Your task to perform on an android device: Open Youtube and go to the subscriptions tab Image 0: 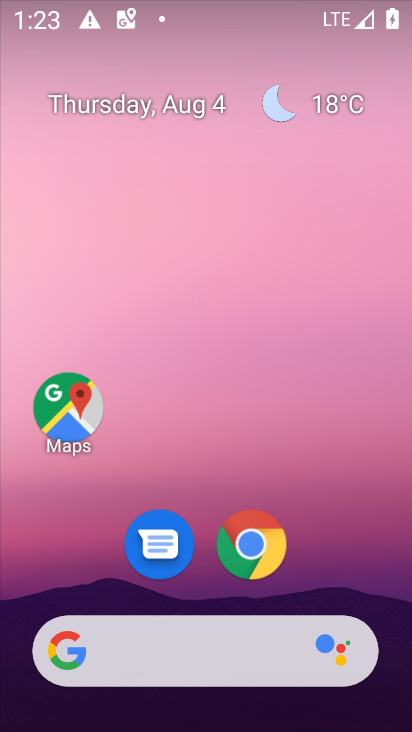
Step 0: drag from (391, 703) to (340, 109)
Your task to perform on an android device: Open Youtube and go to the subscriptions tab Image 1: 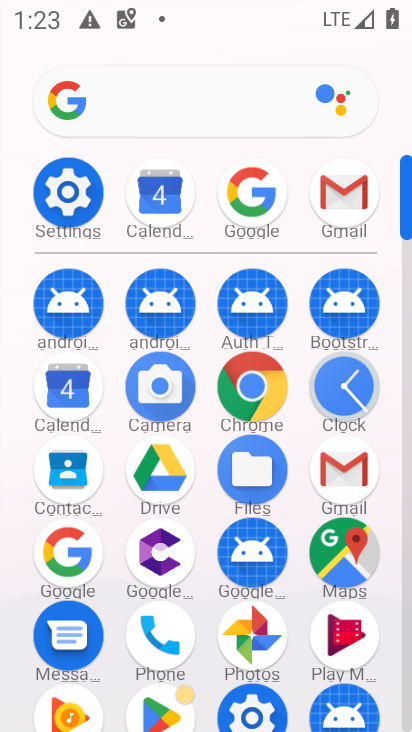
Step 1: drag from (204, 672) to (204, 298)
Your task to perform on an android device: Open Youtube and go to the subscriptions tab Image 2: 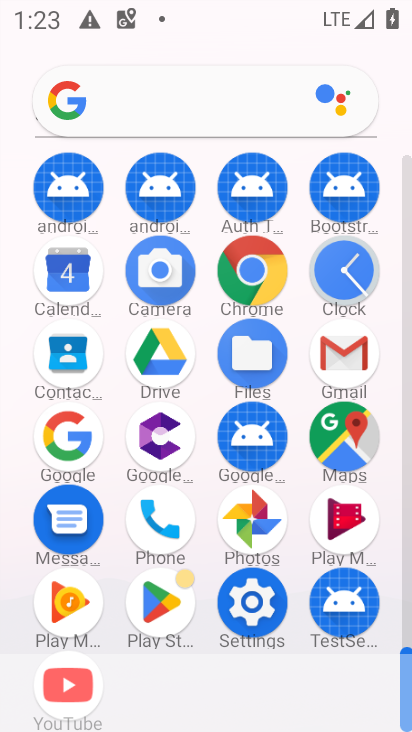
Step 2: click (67, 680)
Your task to perform on an android device: Open Youtube and go to the subscriptions tab Image 3: 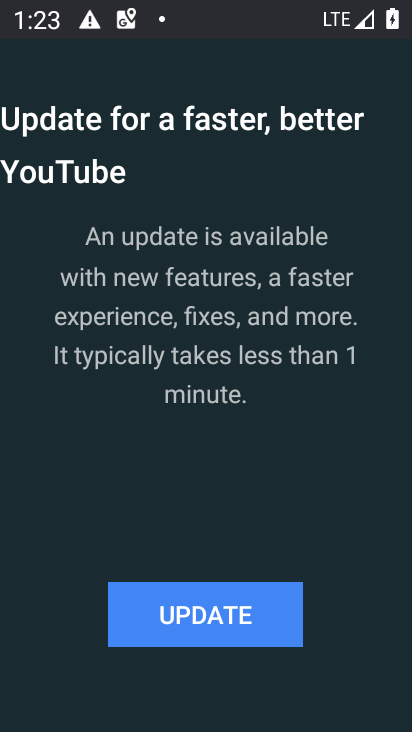
Step 3: click (191, 608)
Your task to perform on an android device: Open Youtube and go to the subscriptions tab Image 4: 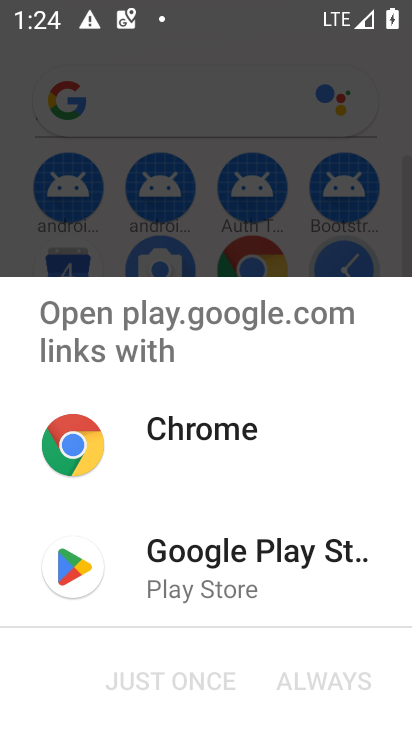
Step 4: click (172, 574)
Your task to perform on an android device: Open Youtube and go to the subscriptions tab Image 5: 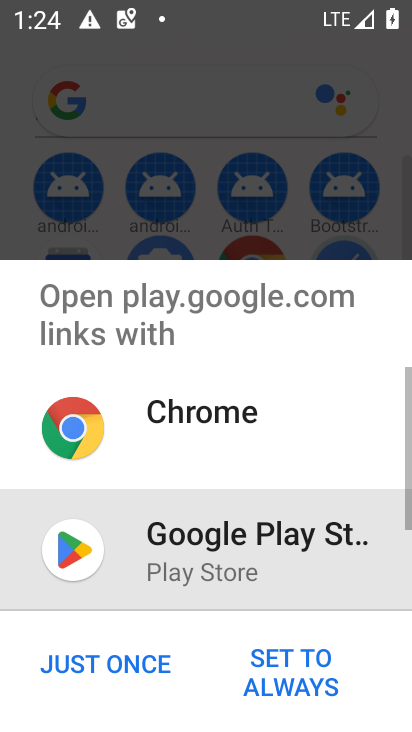
Step 5: click (131, 665)
Your task to perform on an android device: Open Youtube and go to the subscriptions tab Image 6: 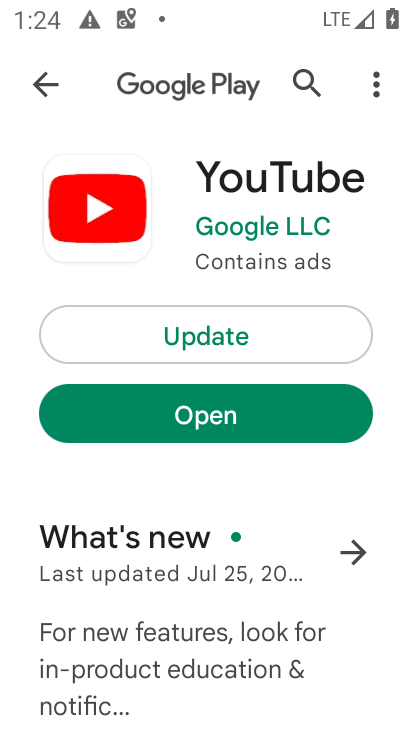
Step 6: click (254, 421)
Your task to perform on an android device: Open Youtube and go to the subscriptions tab Image 7: 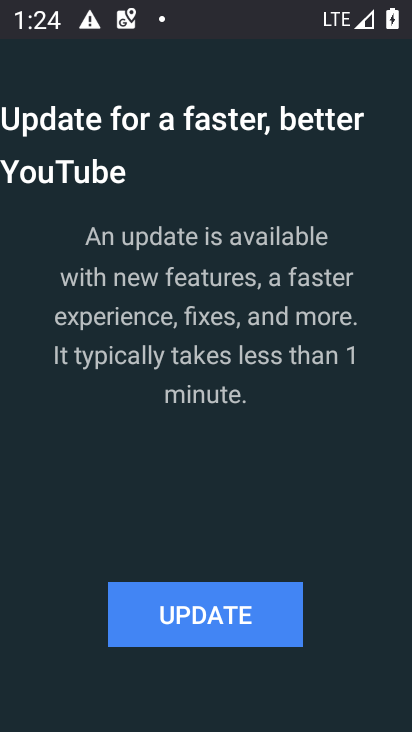
Step 7: click (198, 629)
Your task to perform on an android device: Open Youtube and go to the subscriptions tab Image 8: 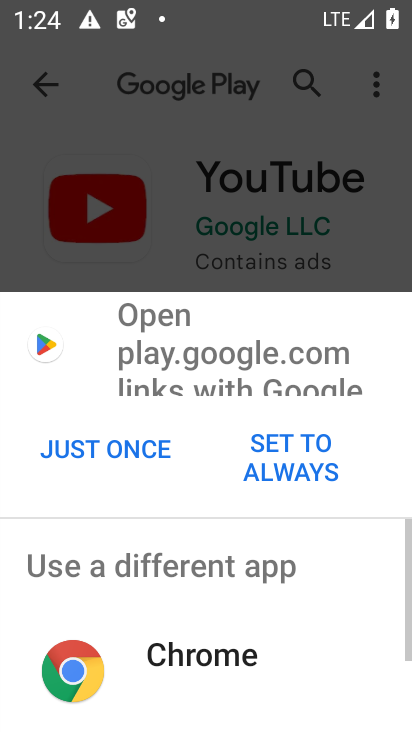
Step 8: click (129, 452)
Your task to perform on an android device: Open Youtube and go to the subscriptions tab Image 9: 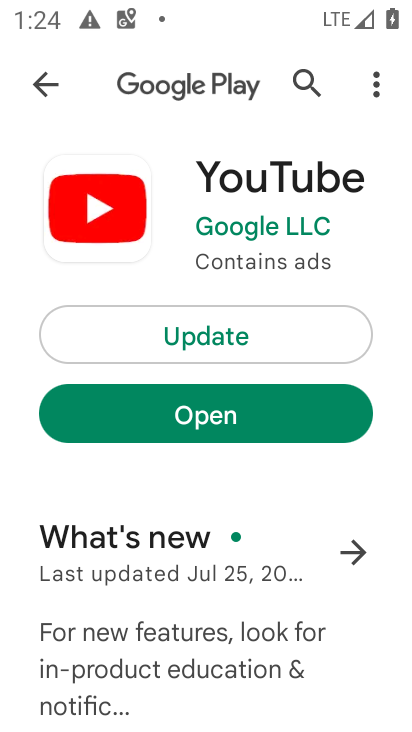
Step 9: click (284, 338)
Your task to perform on an android device: Open Youtube and go to the subscriptions tab Image 10: 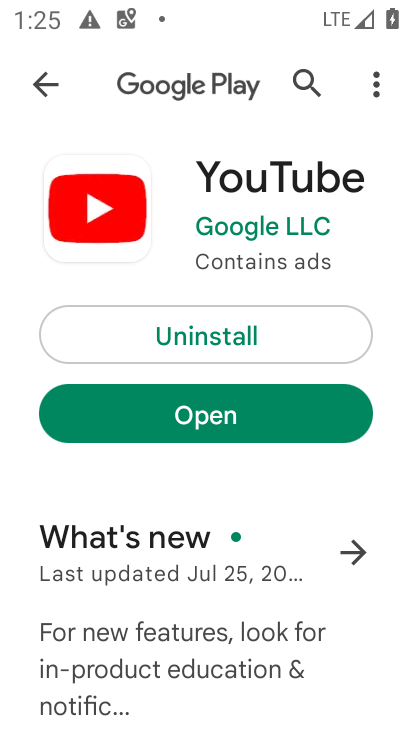
Step 10: click (286, 431)
Your task to perform on an android device: Open Youtube and go to the subscriptions tab Image 11: 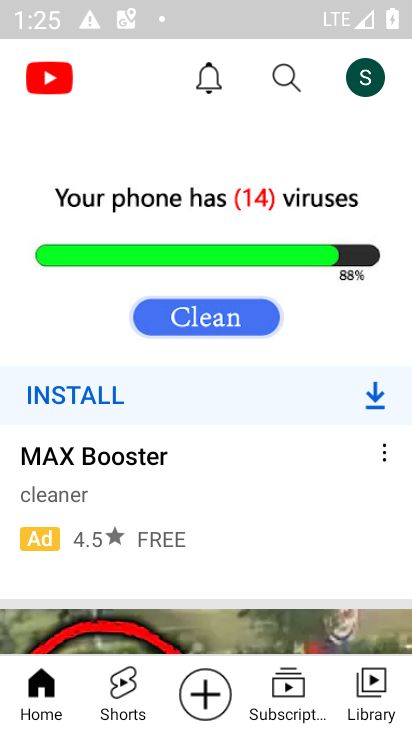
Step 11: click (257, 690)
Your task to perform on an android device: Open Youtube and go to the subscriptions tab Image 12: 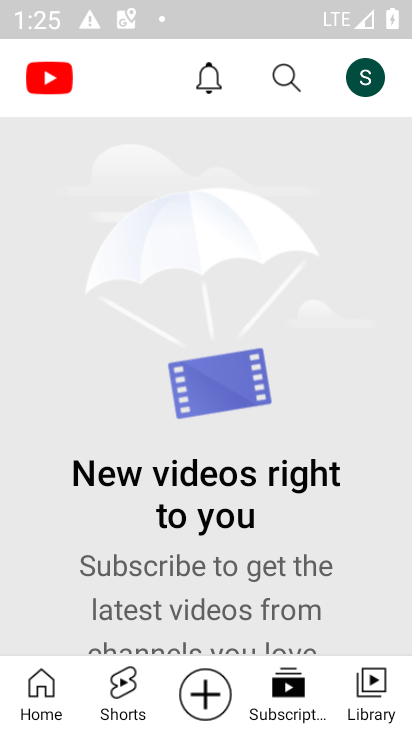
Step 12: task complete